Your task to perform on an android device: What is the news today? Image 0: 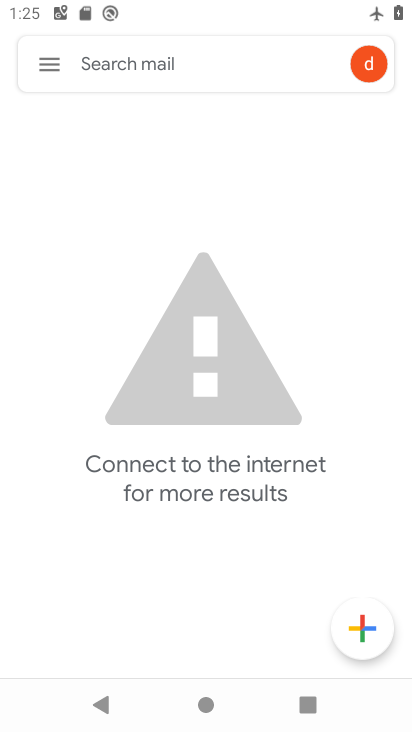
Step 0: press home button
Your task to perform on an android device: What is the news today? Image 1: 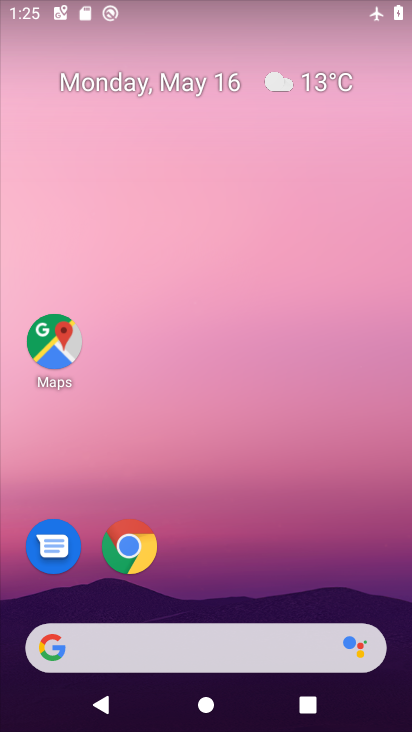
Step 1: task complete